Your task to perform on an android device: Open the map Image 0: 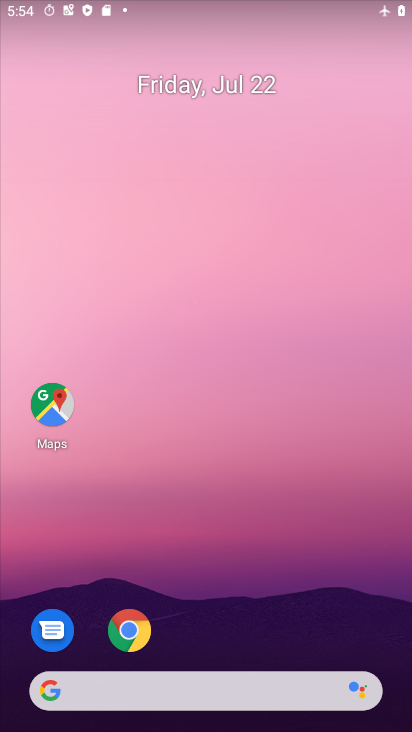
Step 0: drag from (263, 641) to (212, 125)
Your task to perform on an android device: Open the map Image 1: 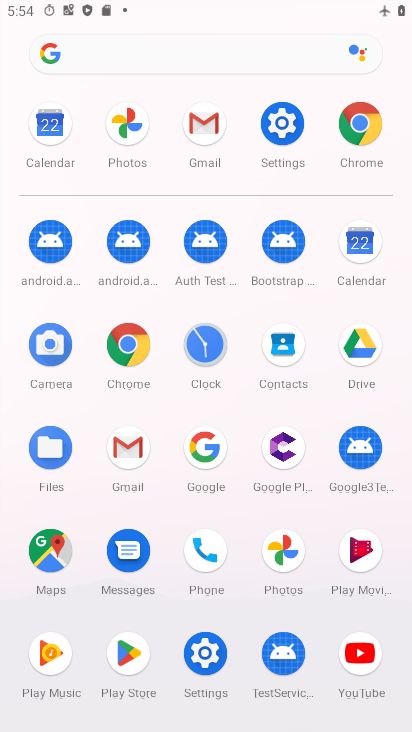
Step 1: click (53, 547)
Your task to perform on an android device: Open the map Image 2: 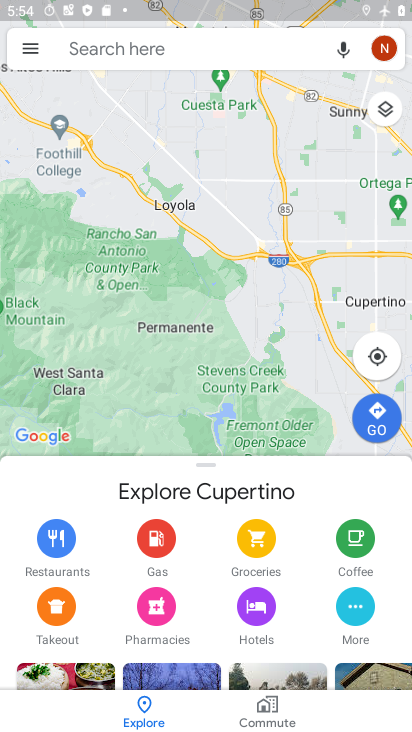
Step 2: task complete